Your task to perform on an android device: Is it going to rain this weekend? Image 0: 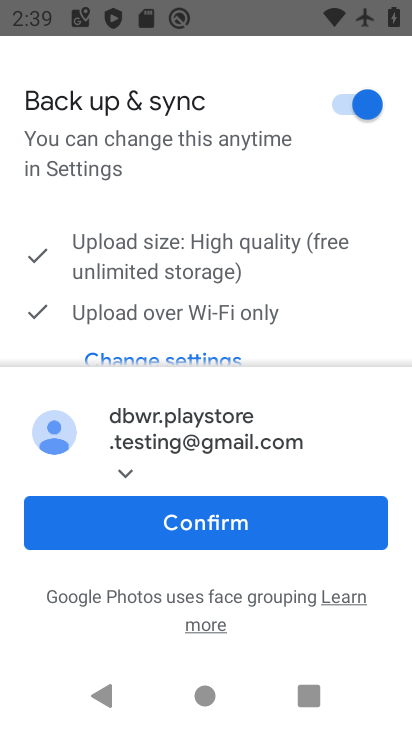
Step 0: press home button
Your task to perform on an android device: Is it going to rain this weekend? Image 1: 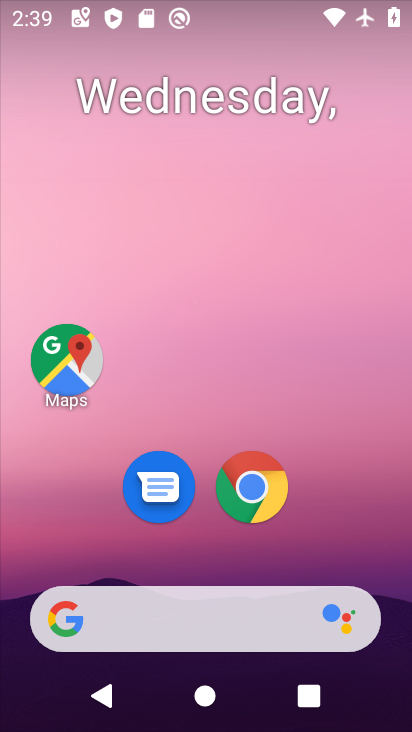
Step 1: drag from (352, 446) to (411, 44)
Your task to perform on an android device: Is it going to rain this weekend? Image 2: 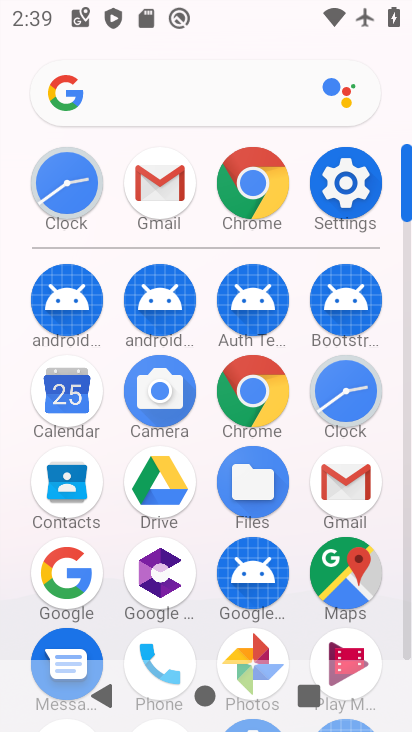
Step 2: click (79, 73)
Your task to perform on an android device: Is it going to rain this weekend? Image 3: 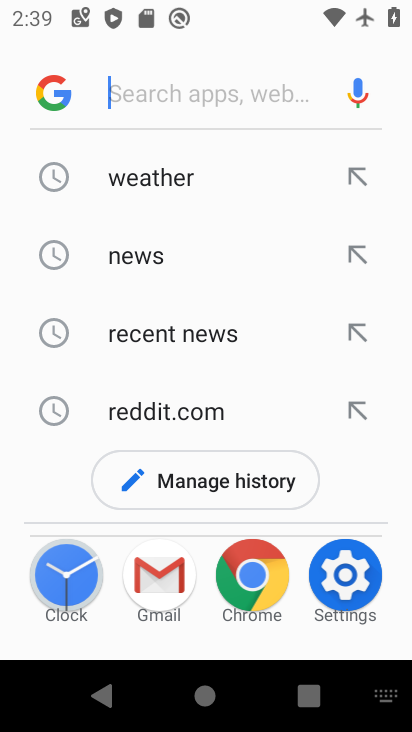
Step 3: click (68, 108)
Your task to perform on an android device: Is it going to rain this weekend? Image 4: 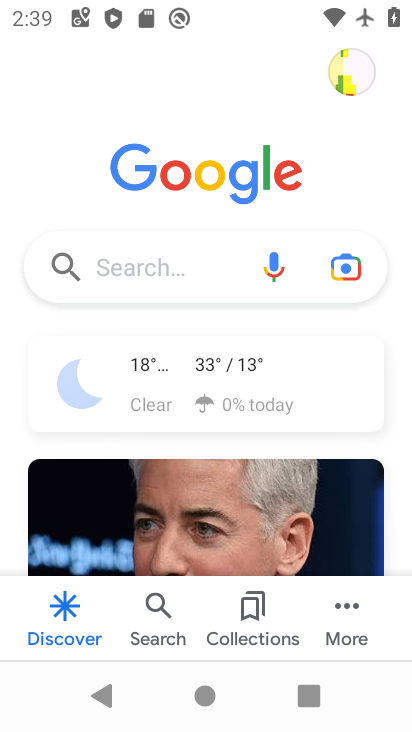
Step 4: click (134, 371)
Your task to perform on an android device: Is it going to rain this weekend? Image 5: 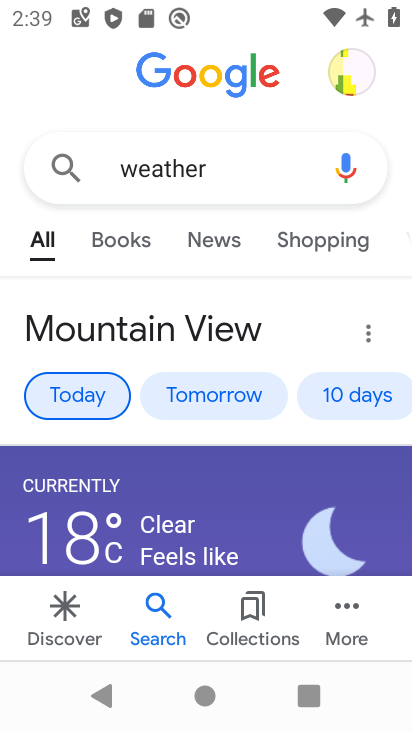
Step 5: task complete